Your task to perform on an android device: Search for Italian restaurants on Maps Image 0: 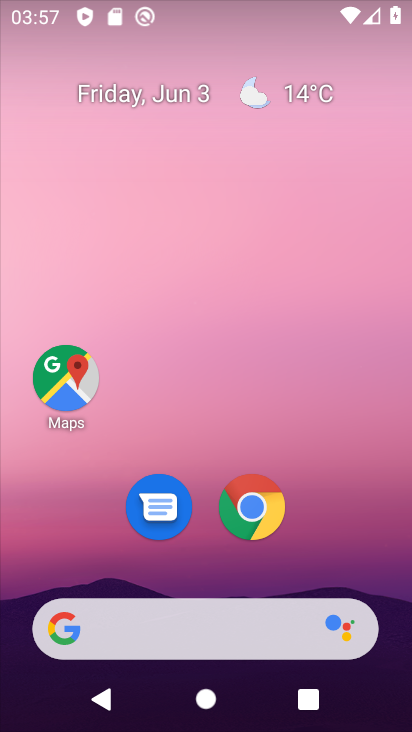
Step 0: press home button
Your task to perform on an android device: Search for Italian restaurants on Maps Image 1: 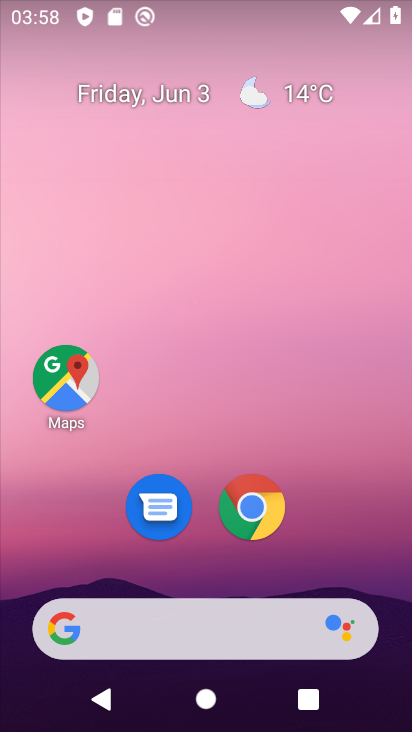
Step 1: click (68, 373)
Your task to perform on an android device: Search for Italian restaurants on Maps Image 2: 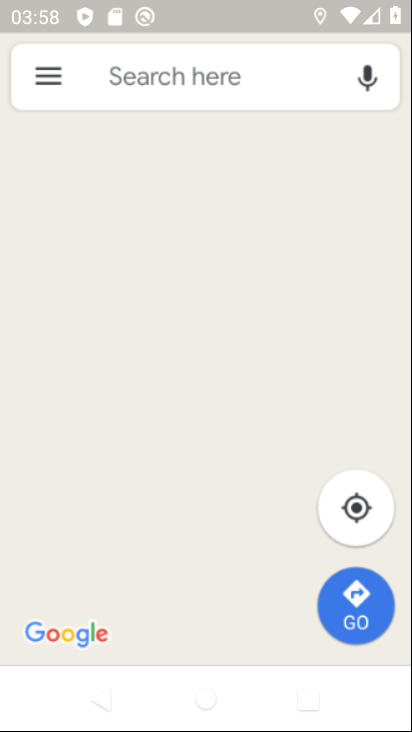
Step 2: click (208, 73)
Your task to perform on an android device: Search for Italian restaurants on Maps Image 3: 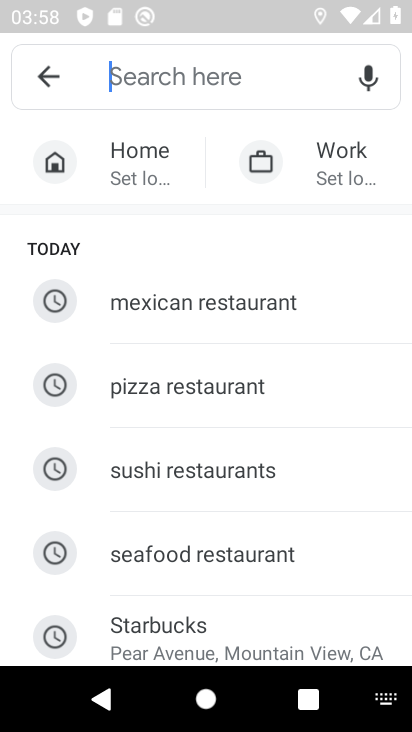
Step 3: type " Italian restaurants"
Your task to perform on an android device: Search for Italian restaurants on Maps Image 4: 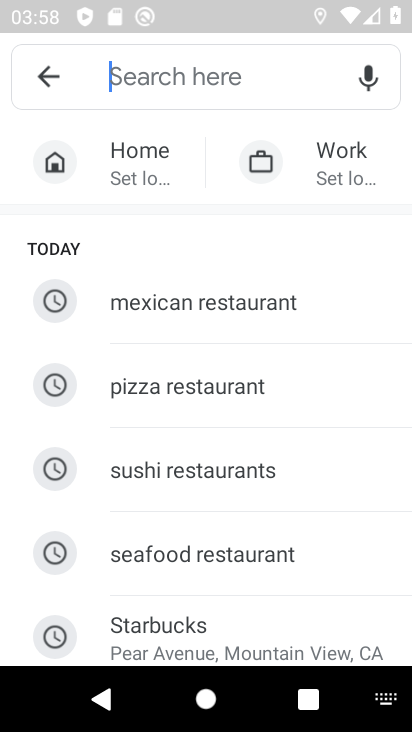
Step 4: click (220, 79)
Your task to perform on an android device: Search for Italian restaurants on Maps Image 5: 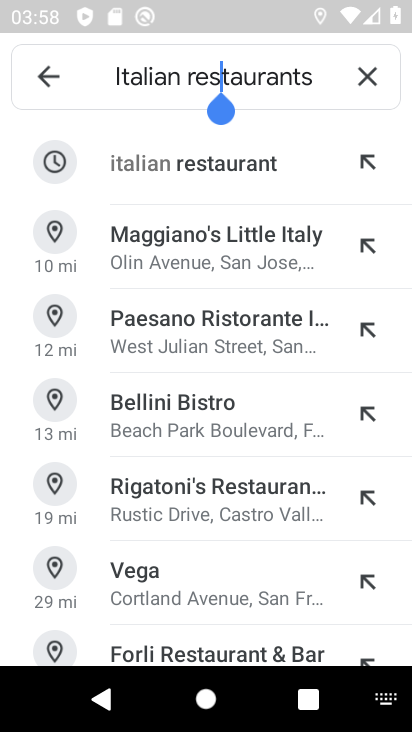
Step 5: click (189, 159)
Your task to perform on an android device: Search for Italian restaurants on Maps Image 6: 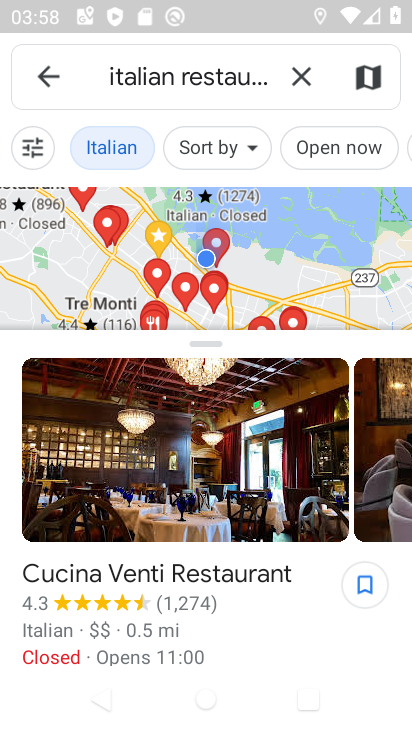
Step 6: task complete